Your task to perform on an android device: see tabs open on other devices in the chrome app Image 0: 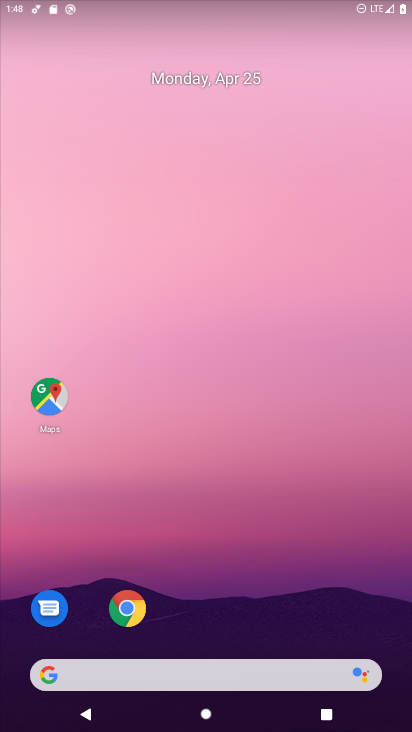
Step 0: drag from (376, 651) to (247, 13)
Your task to perform on an android device: see tabs open on other devices in the chrome app Image 1: 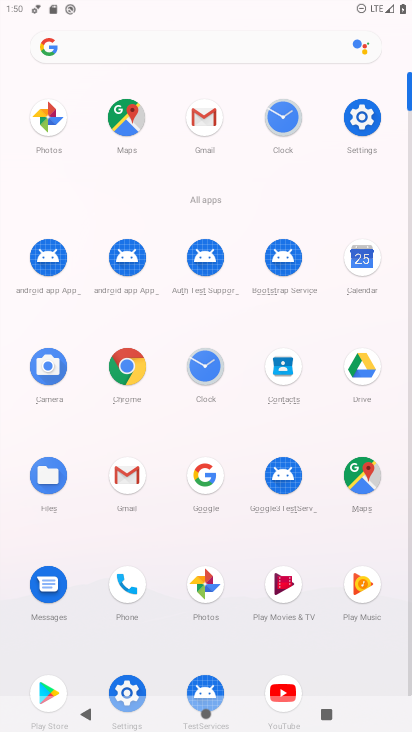
Step 1: click (123, 371)
Your task to perform on an android device: see tabs open on other devices in the chrome app Image 2: 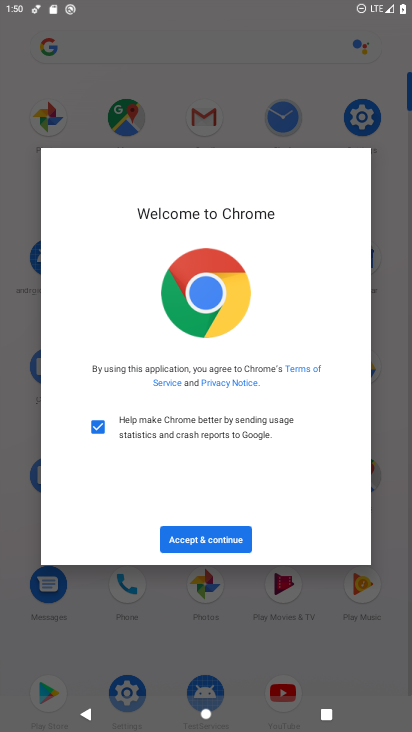
Step 2: click (210, 532)
Your task to perform on an android device: see tabs open on other devices in the chrome app Image 3: 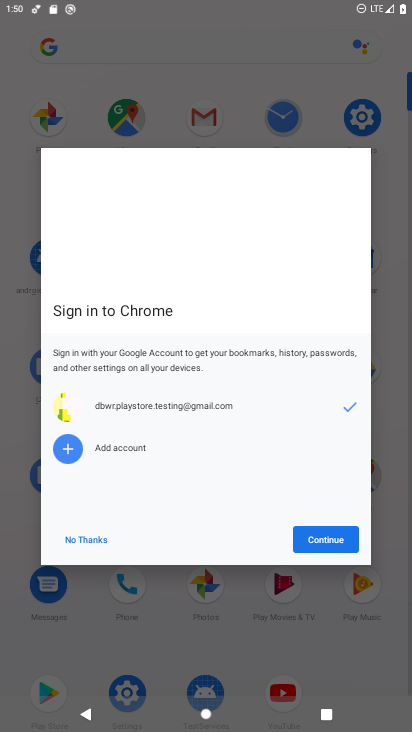
Step 3: click (323, 545)
Your task to perform on an android device: see tabs open on other devices in the chrome app Image 4: 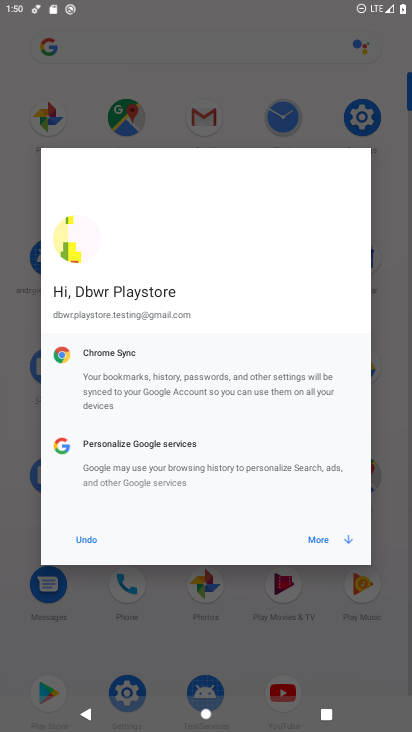
Step 4: click (316, 537)
Your task to perform on an android device: see tabs open on other devices in the chrome app Image 5: 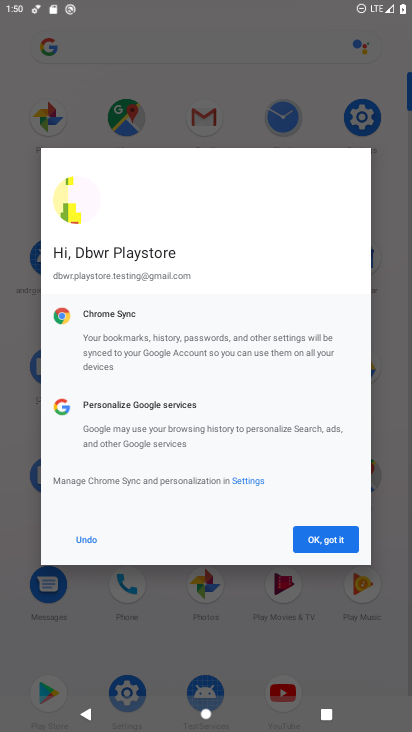
Step 5: click (316, 537)
Your task to perform on an android device: see tabs open on other devices in the chrome app Image 6: 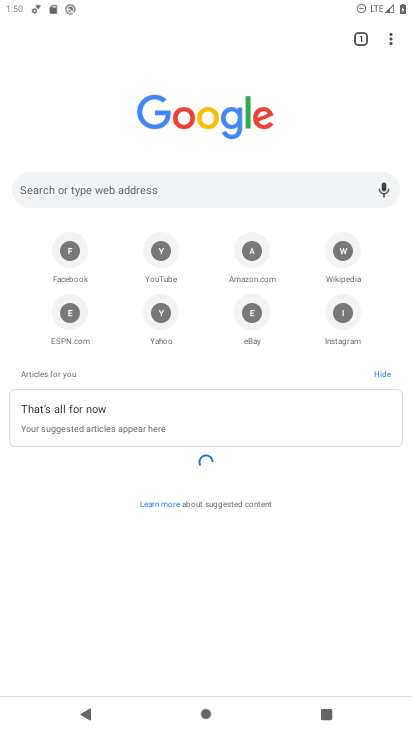
Step 6: task complete